Your task to perform on an android device: turn on the 24-hour format for clock Image 0: 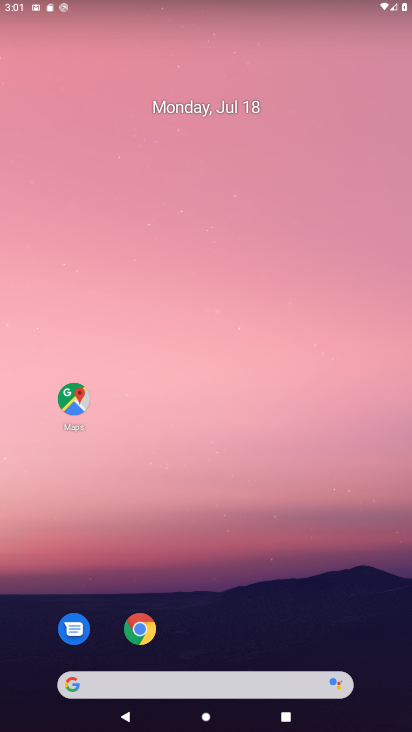
Step 0: drag from (347, 617) to (367, 41)
Your task to perform on an android device: turn on the 24-hour format for clock Image 1: 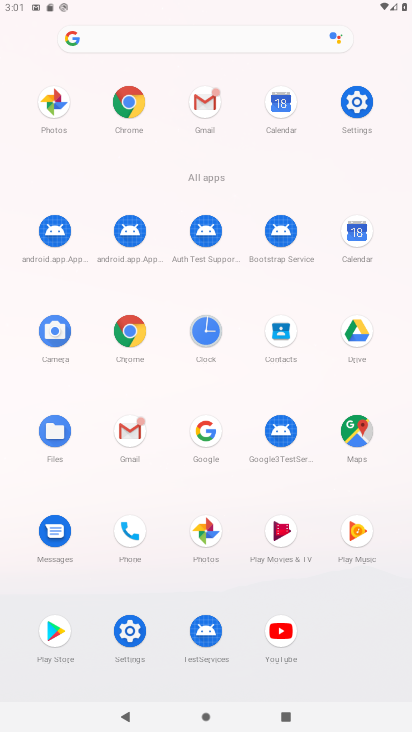
Step 1: click (201, 331)
Your task to perform on an android device: turn on the 24-hour format for clock Image 2: 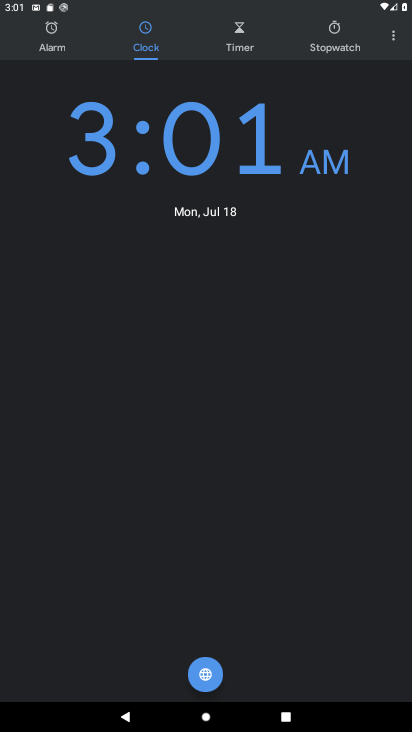
Step 2: click (391, 43)
Your task to perform on an android device: turn on the 24-hour format for clock Image 3: 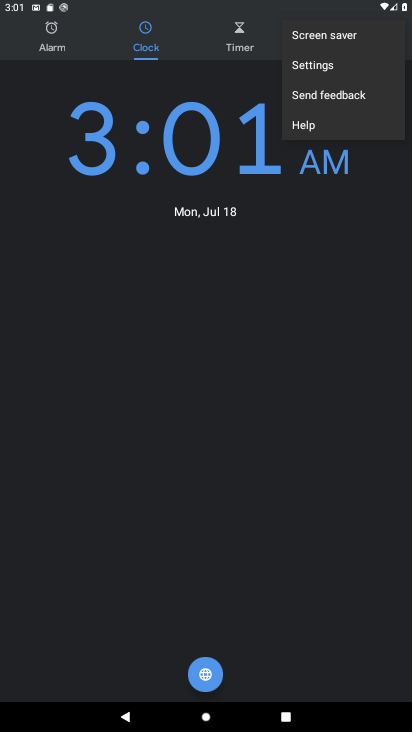
Step 3: click (346, 73)
Your task to perform on an android device: turn on the 24-hour format for clock Image 4: 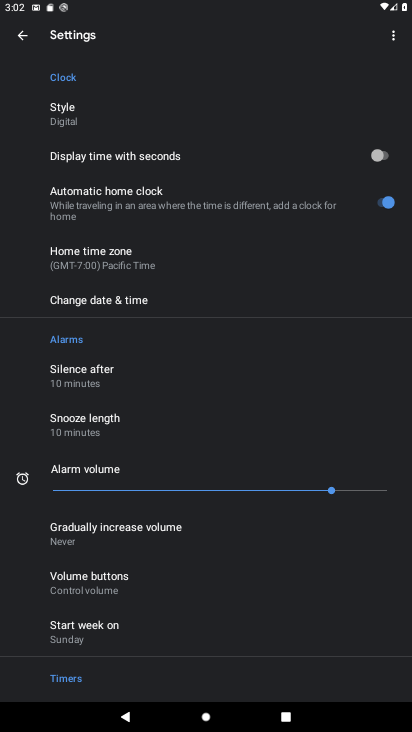
Step 4: drag from (375, 381) to (378, 300)
Your task to perform on an android device: turn on the 24-hour format for clock Image 5: 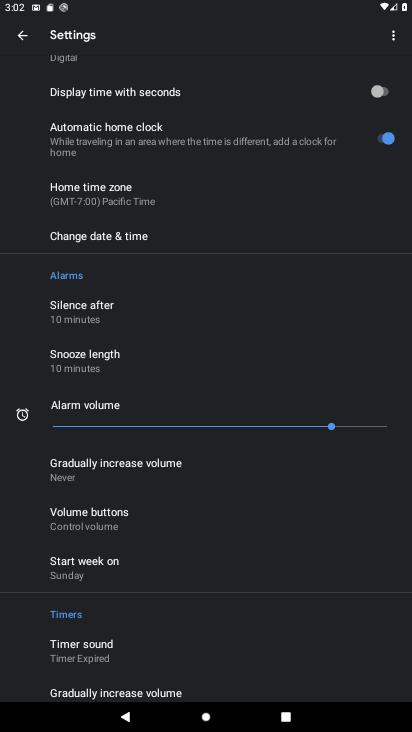
Step 5: drag from (372, 454) to (372, 361)
Your task to perform on an android device: turn on the 24-hour format for clock Image 6: 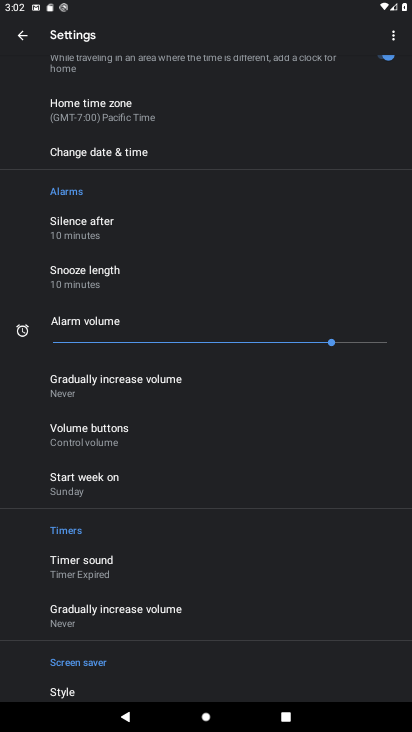
Step 6: drag from (347, 470) to (347, 377)
Your task to perform on an android device: turn on the 24-hour format for clock Image 7: 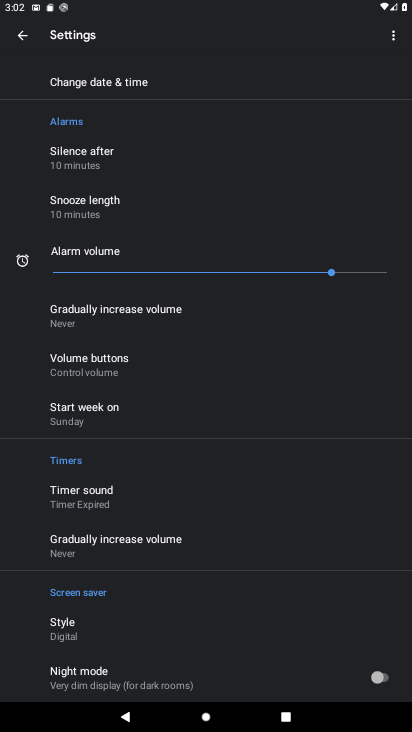
Step 7: drag from (340, 481) to (346, 364)
Your task to perform on an android device: turn on the 24-hour format for clock Image 8: 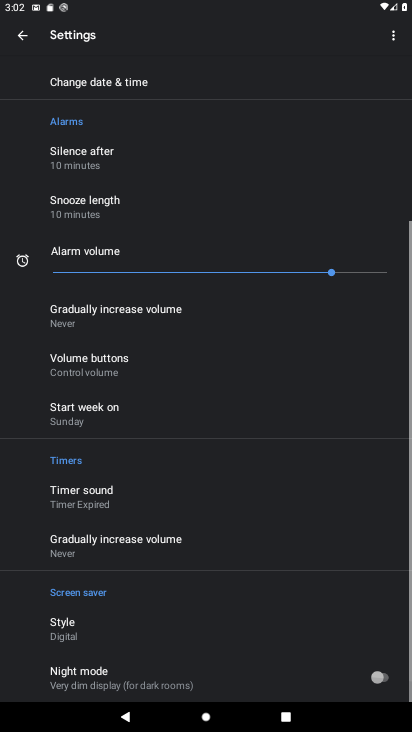
Step 8: drag from (343, 337) to (345, 419)
Your task to perform on an android device: turn on the 24-hour format for clock Image 9: 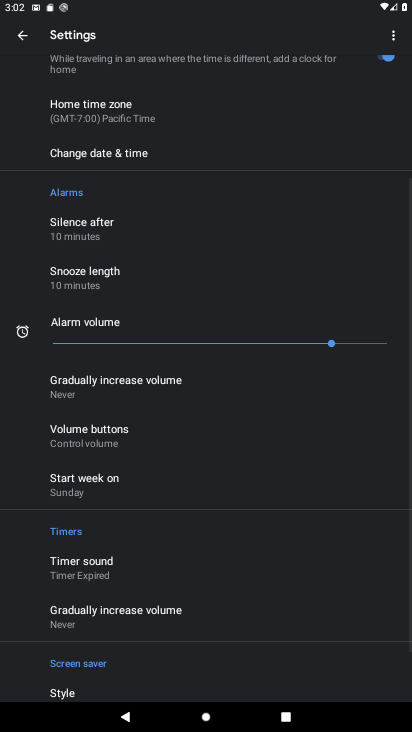
Step 9: drag from (351, 374) to (351, 461)
Your task to perform on an android device: turn on the 24-hour format for clock Image 10: 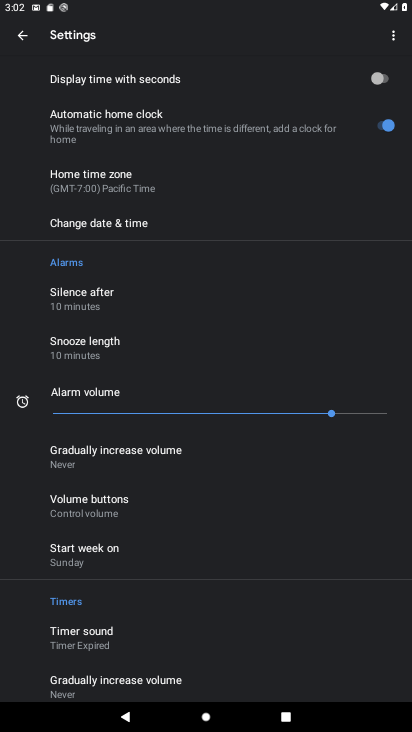
Step 10: drag from (337, 331) to (340, 428)
Your task to perform on an android device: turn on the 24-hour format for clock Image 11: 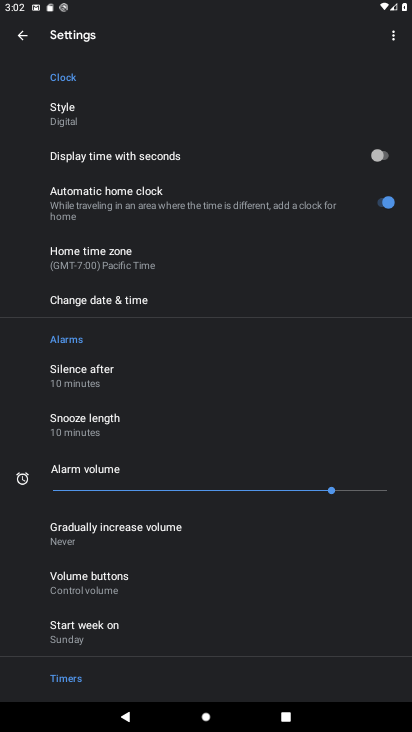
Step 11: drag from (323, 300) to (261, 306)
Your task to perform on an android device: turn on the 24-hour format for clock Image 12: 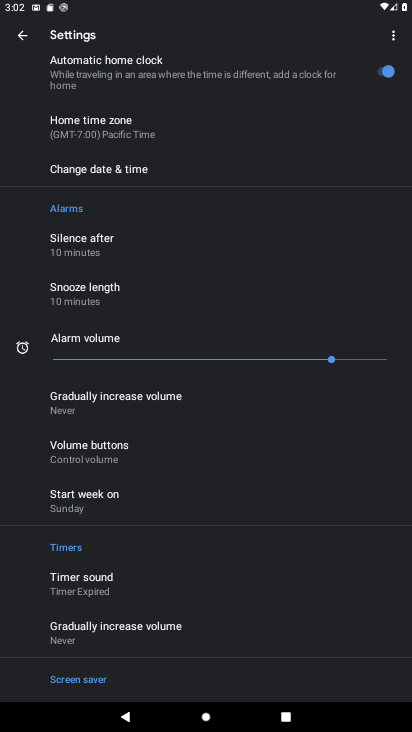
Step 12: click (200, 159)
Your task to perform on an android device: turn on the 24-hour format for clock Image 13: 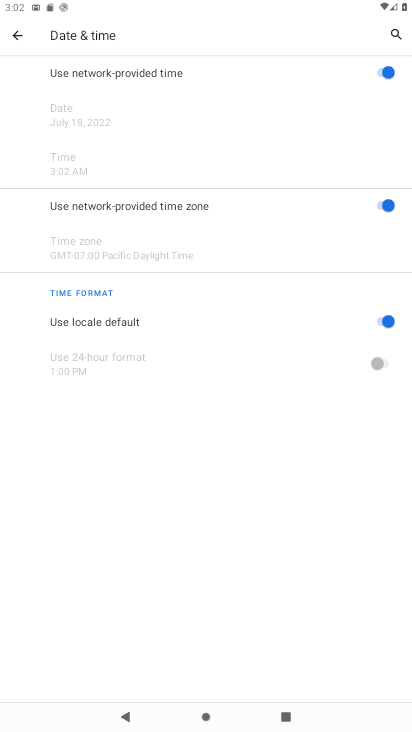
Step 13: click (387, 313)
Your task to perform on an android device: turn on the 24-hour format for clock Image 14: 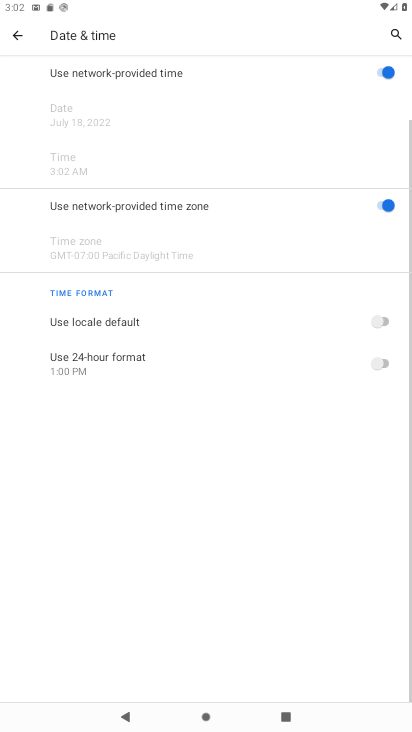
Step 14: click (363, 365)
Your task to perform on an android device: turn on the 24-hour format for clock Image 15: 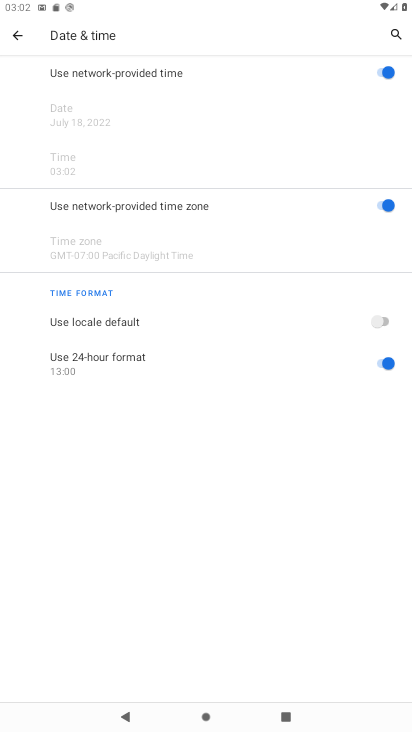
Step 15: task complete